Your task to perform on an android device: turn notification dots off Image 0: 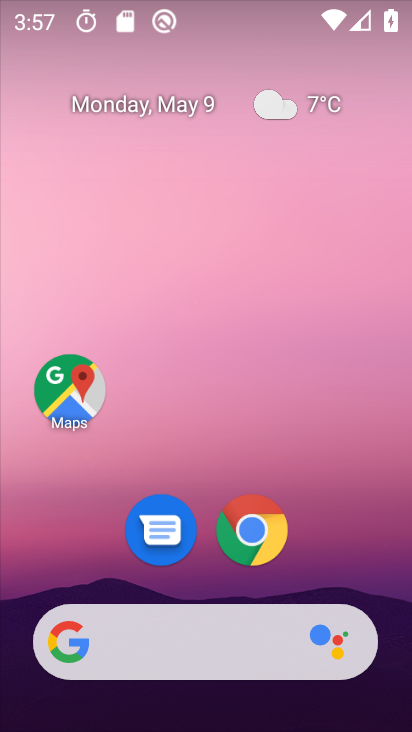
Step 0: drag from (178, 532) to (236, 30)
Your task to perform on an android device: turn notification dots off Image 1: 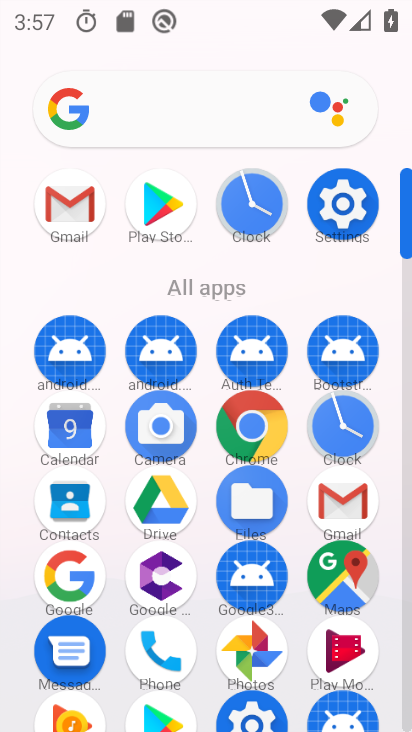
Step 1: click (334, 191)
Your task to perform on an android device: turn notification dots off Image 2: 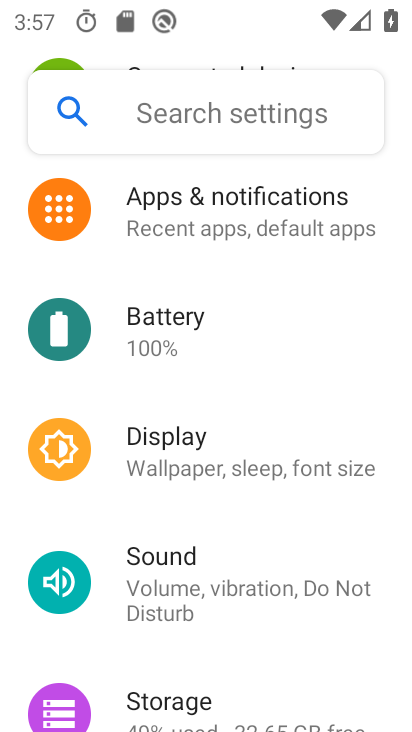
Step 2: click (255, 212)
Your task to perform on an android device: turn notification dots off Image 3: 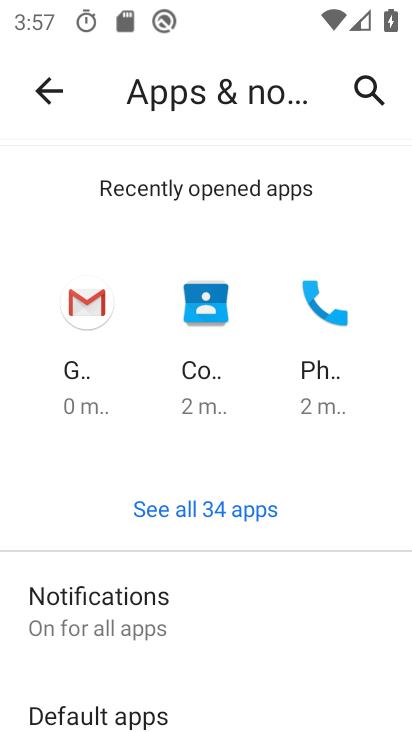
Step 3: drag from (169, 694) to (223, 345)
Your task to perform on an android device: turn notification dots off Image 4: 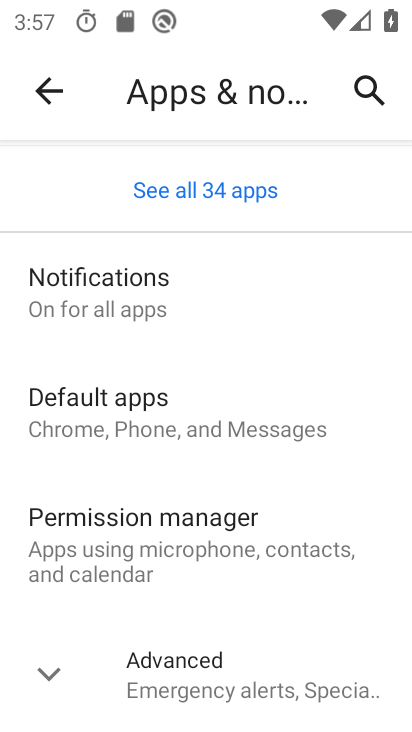
Step 4: click (159, 284)
Your task to perform on an android device: turn notification dots off Image 5: 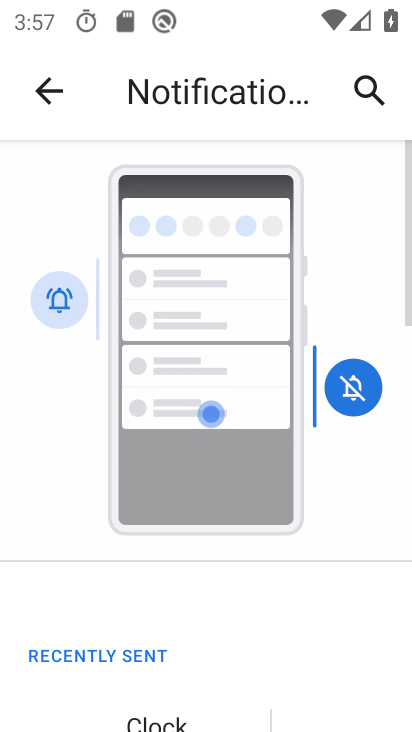
Step 5: drag from (181, 675) to (245, 145)
Your task to perform on an android device: turn notification dots off Image 6: 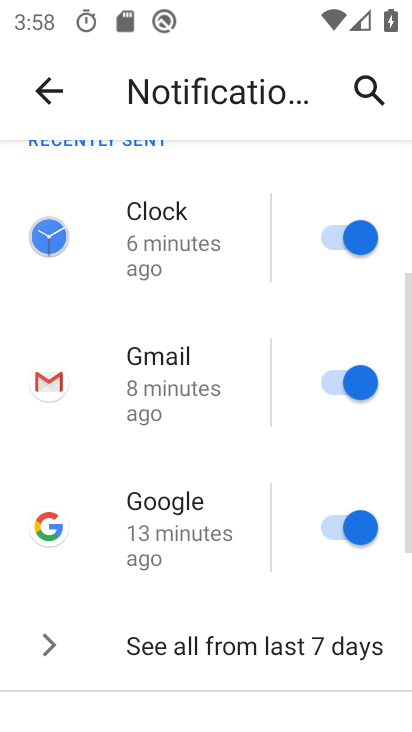
Step 6: drag from (172, 680) to (243, 167)
Your task to perform on an android device: turn notification dots off Image 7: 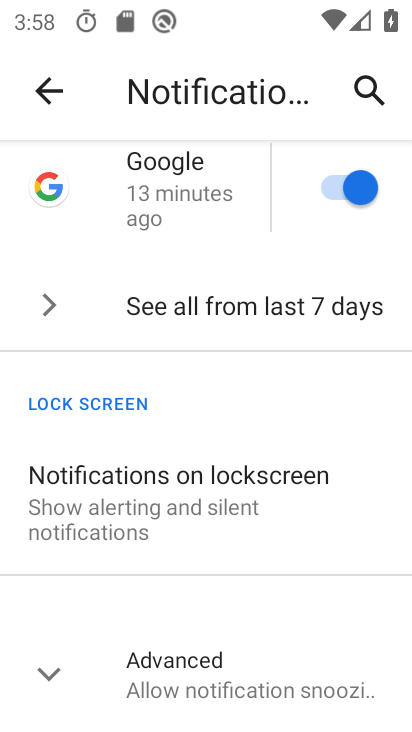
Step 7: click (172, 660)
Your task to perform on an android device: turn notification dots off Image 8: 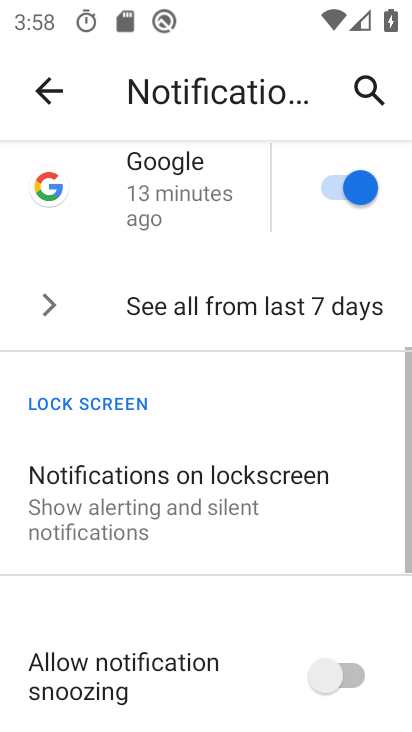
Step 8: task complete